Your task to perform on an android device: Open the phone app and click the voicemail tab. Image 0: 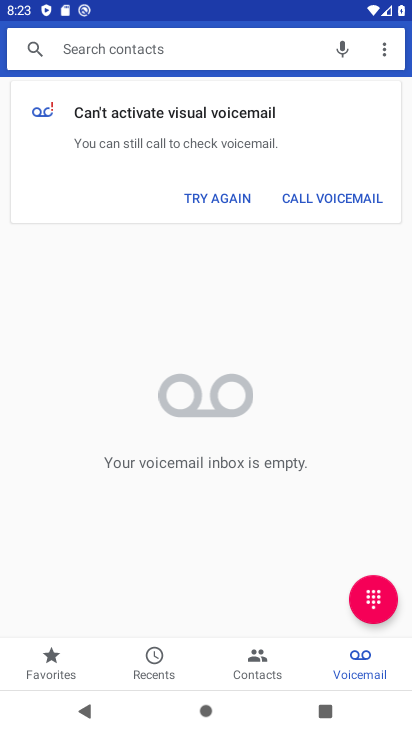
Step 0: click (354, 656)
Your task to perform on an android device: Open the phone app and click the voicemail tab. Image 1: 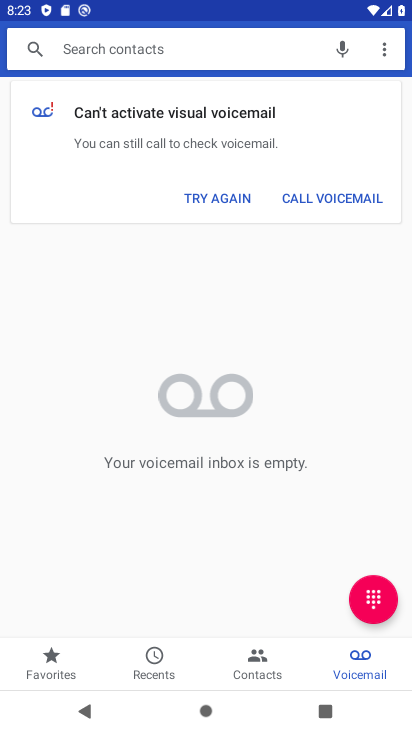
Step 1: task complete